Your task to perform on an android device: Go to Android settings Image 0: 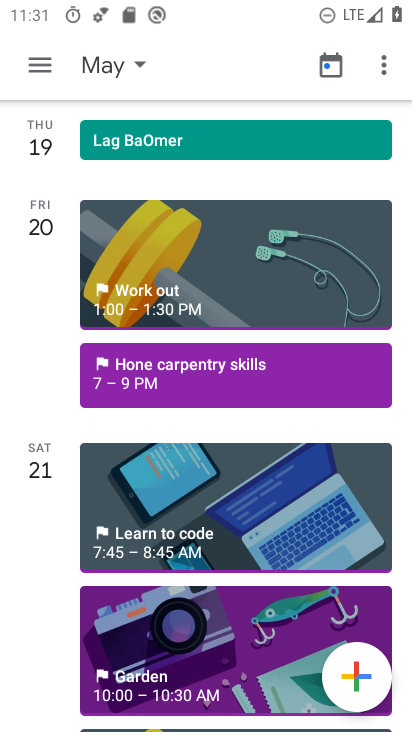
Step 0: drag from (274, 609) to (290, 205)
Your task to perform on an android device: Go to Android settings Image 1: 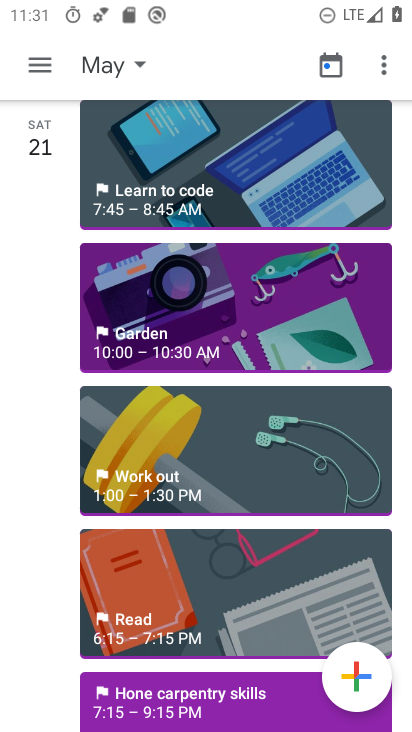
Step 1: press home button
Your task to perform on an android device: Go to Android settings Image 2: 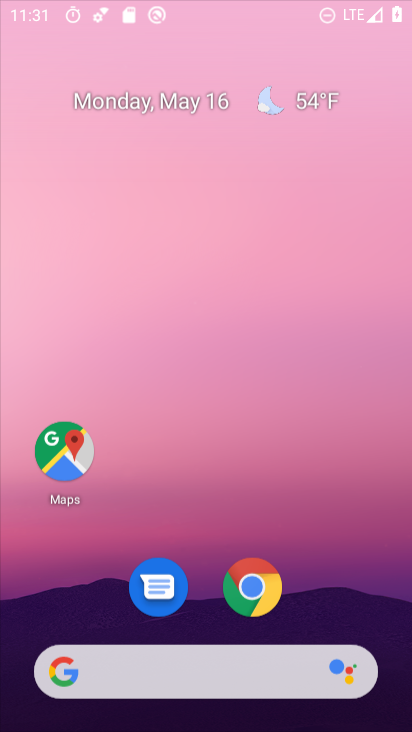
Step 2: drag from (188, 605) to (256, 159)
Your task to perform on an android device: Go to Android settings Image 3: 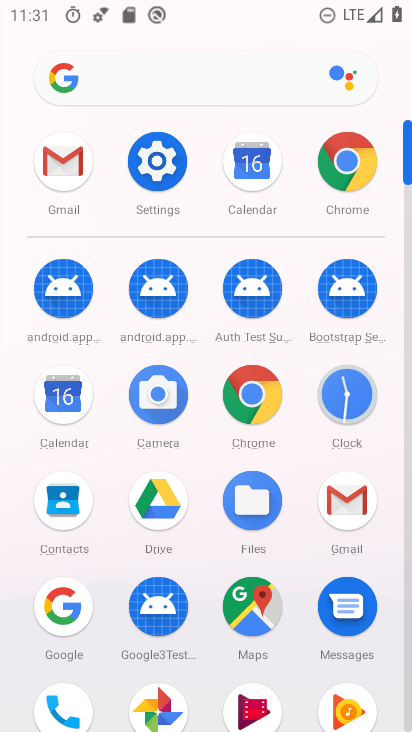
Step 3: click (168, 144)
Your task to perform on an android device: Go to Android settings Image 4: 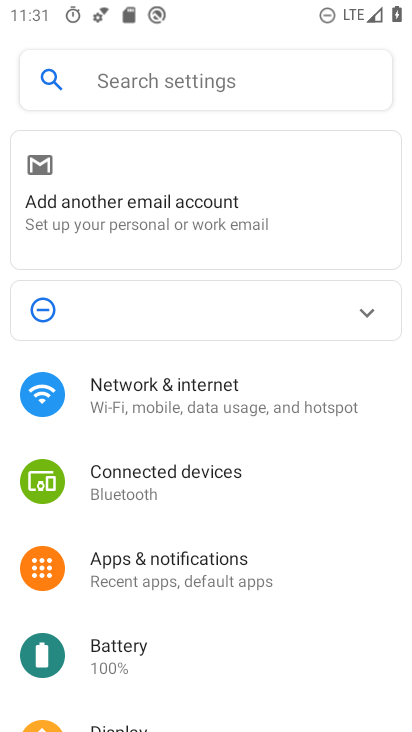
Step 4: drag from (239, 641) to (287, 113)
Your task to perform on an android device: Go to Android settings Image 5: 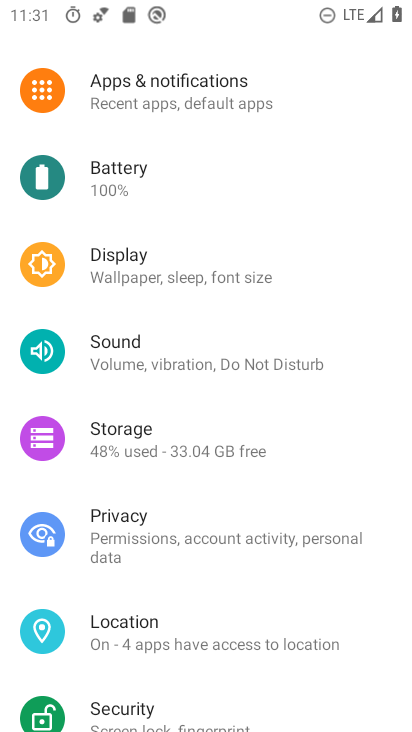
Step 5: drag from (189, 662) to (200, 218)
Your task to perform on an android device: Go to Android settings Image 6: 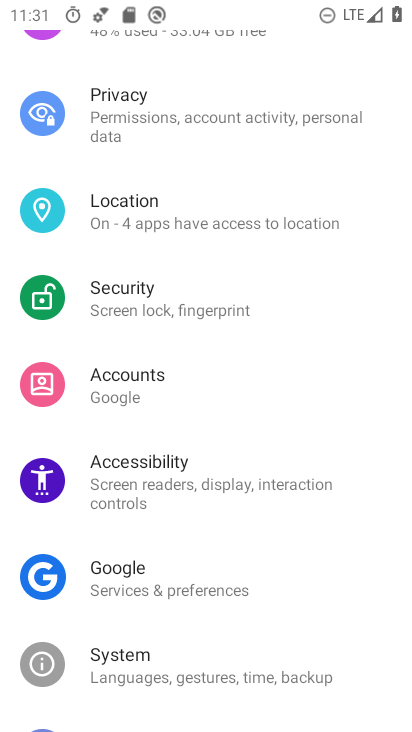
Step 6: drag from (187, 659) to (263, 1)
Your task to perform on an android device: Go to Android settings Image 7: 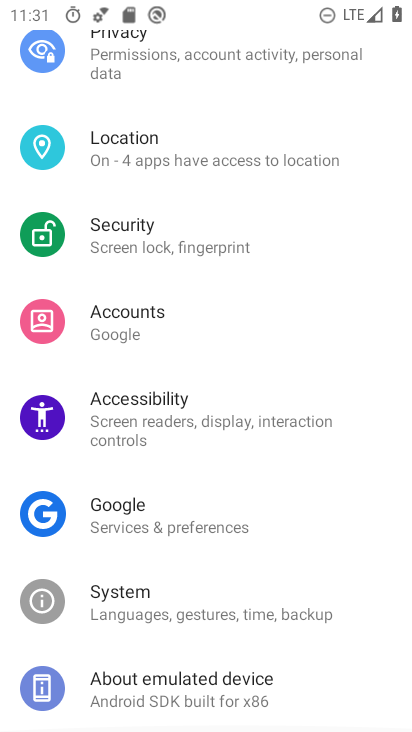
Step 7: click (199, 699)
Your task to perform on an android device: Go to Android settings Image 8: 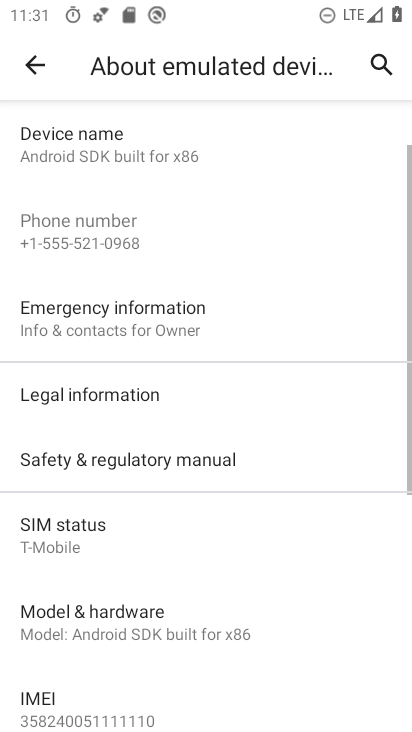
Step 8: drag from (202, 660) to (262, 182)
Your task to perform on an android device: Go to Android settings Image 9: 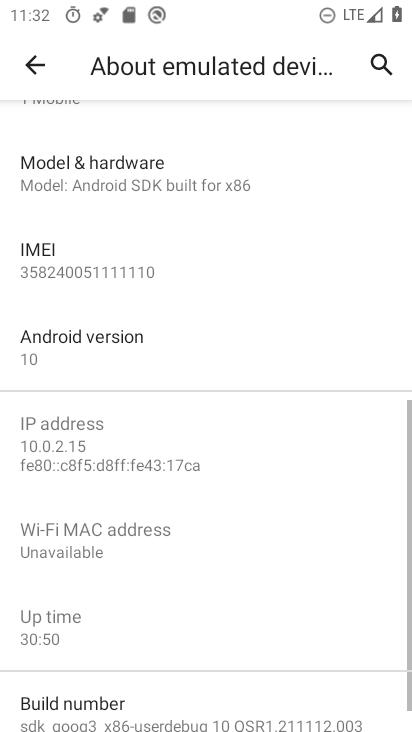
Step 9: click (125, 334)
Your task to perform on an android device: Go to Android settings Image 10: 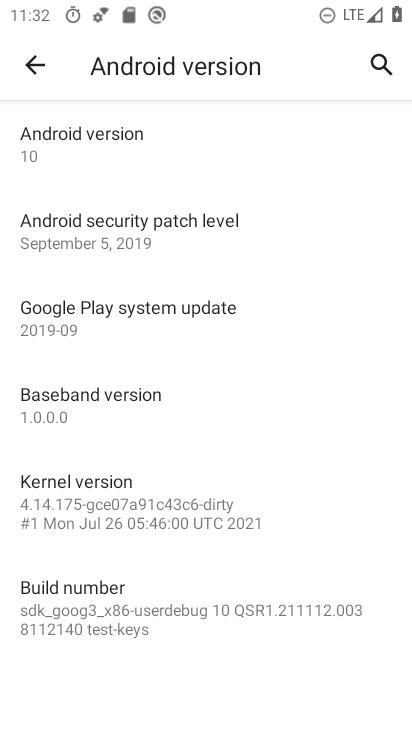
Step 10: click (128, 152)
Your task to perform on an android device: Go to Android settings Image 11: 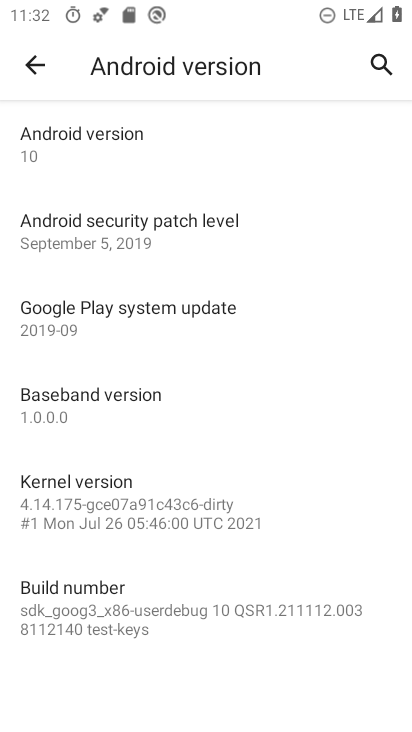
Step 11: click (128, 152)
Your task to perform on an android device: Go to Android settings Image 12: 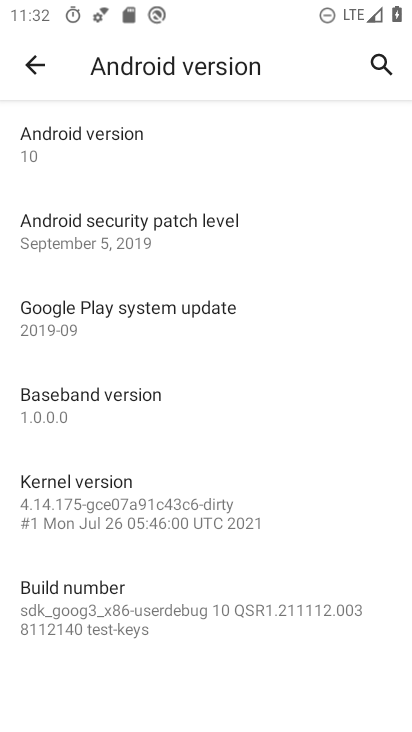
Step 12: task complete